Your task to perform on an android device: allow notifications from all sites in the chrome app Image 0: 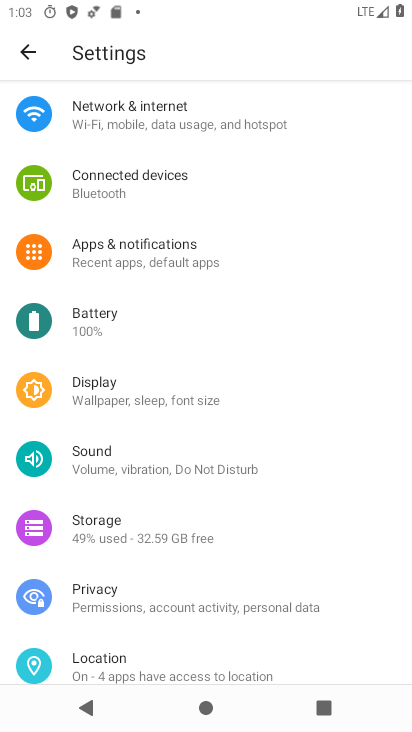
Step 0: press home button
Your task to perform on an android device: allow notifications from all sites in the chrome app Image 1: 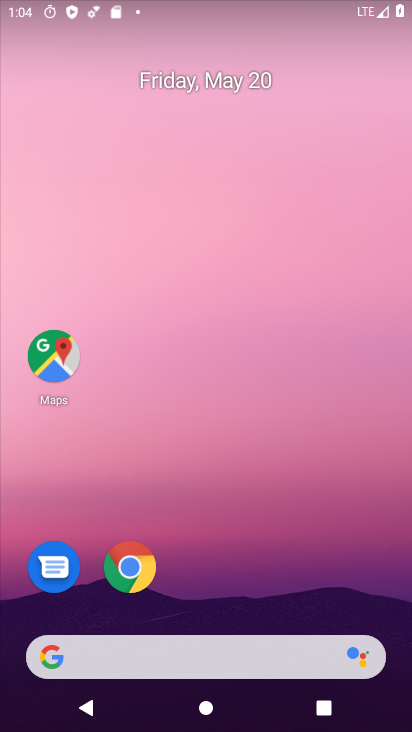
Step 1: click (142, 561)
Your task to perform on an android device: allow notifications from all sites in the chrome app Image 2: 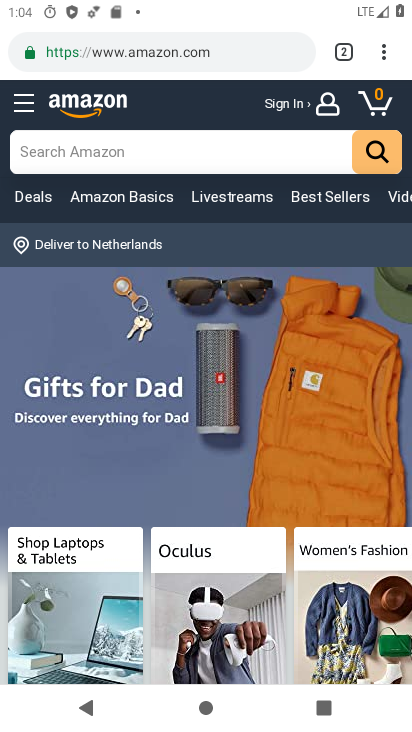
Step 2: click (390, 62)
Your task to perform on an android device: allow notifications from all sites in the chrome app Image 3: 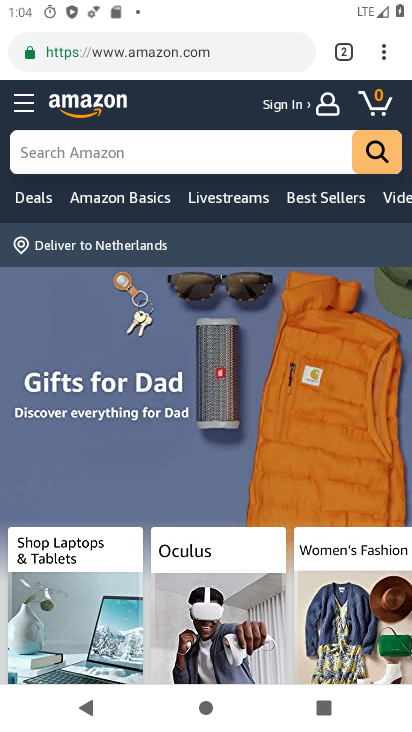
Step 3: click (390, 62)
Your task to perform on an android device: allow notifications from all sites in the chrome app Image 4: 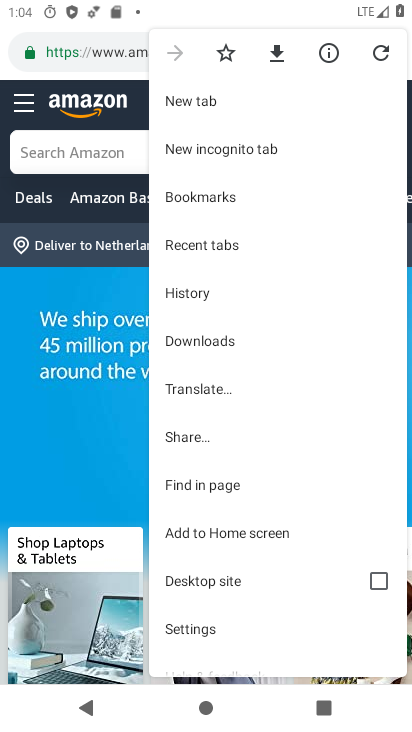
Step 4: click (238, 631)
Your task to perform on an android device: allow notifications from all sites in the chrome app Image 5: 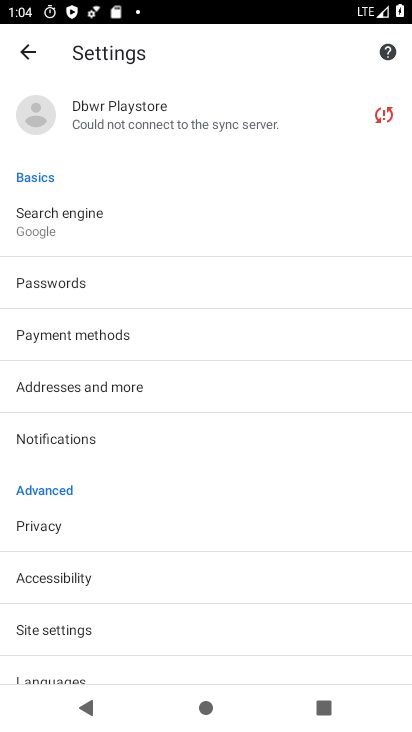
Step 5: drag from (239, 638) to (227, 429)
Your task to perform on an android device: allow notifications from all sites in the chrome app Image 6: 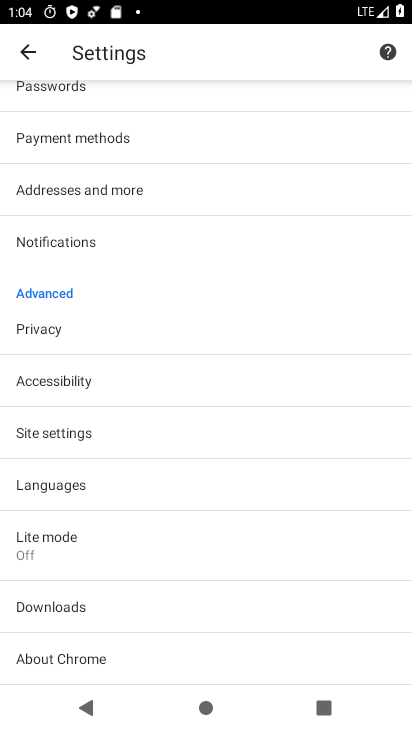
Step 6: click (220, 452)
Your task to perform on an android device: allow notifications from all sites in the chrome app Image 7: 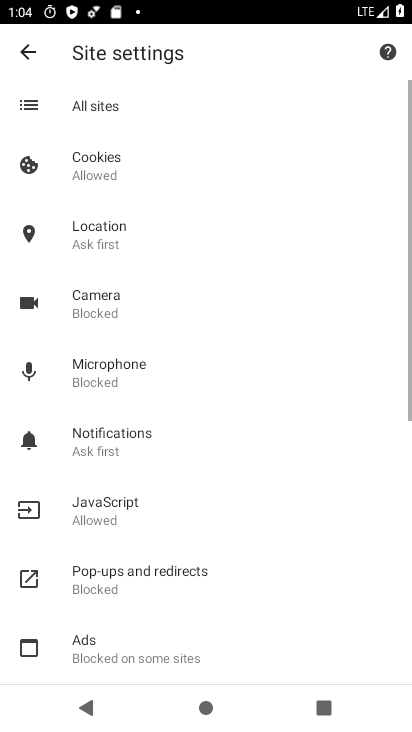
Step 7: click (220, 452)
Your task to perform on an android device: allow notifications from all sites in the chrome app Image 8: 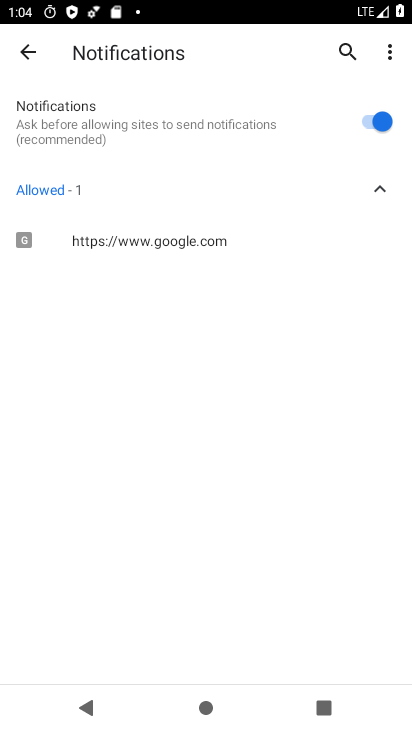
Step 8: task complete